Your task to perform on an android device: Open the Play Movies app and select the watchlist tab. Image 0: 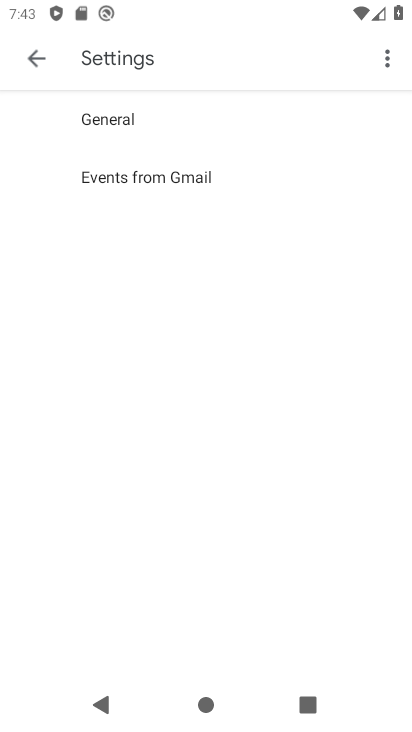
Step 0: press home button
Your task to perform on an android device: Open the Play Movies app and select the watchlist tab. Image 1: 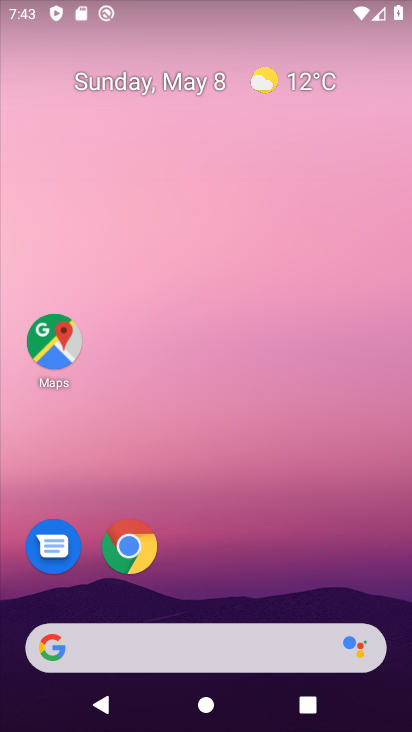
Step 1: click (314, 43)
Your task to perform on an android device: Open the Play Movies app and select the watchlist tab. Image 2: 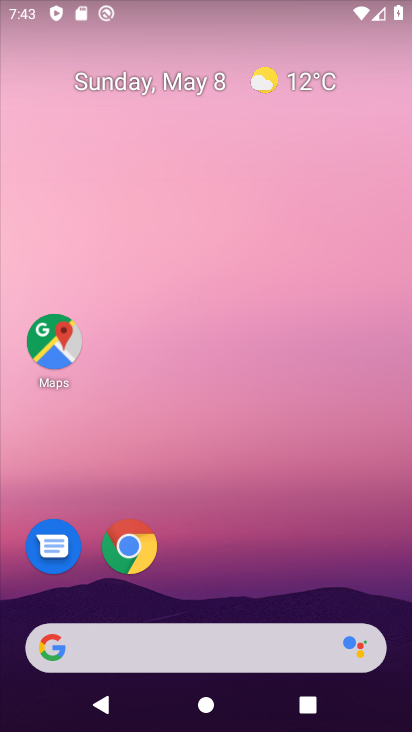
Step 2: click (316, 196)
Your task to perform on an android device: Open the Play Movies app and select the watchlist tab. Image 3: 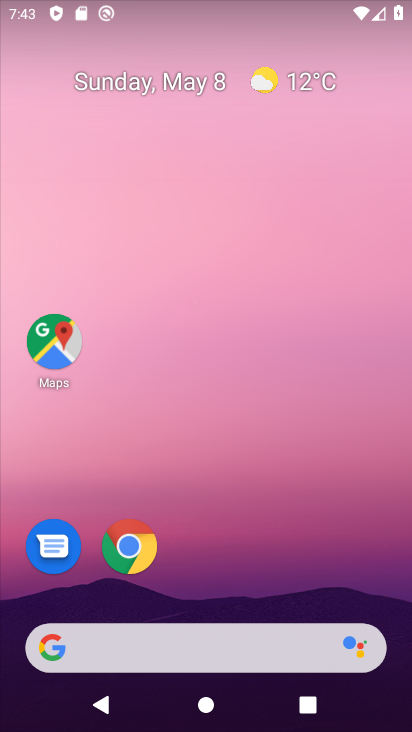
Step 3: drag from (397, 646) to (350, 37)
Your task to perform on an android device: Open the Play Movies app and select the watchlist tab. Image 4: 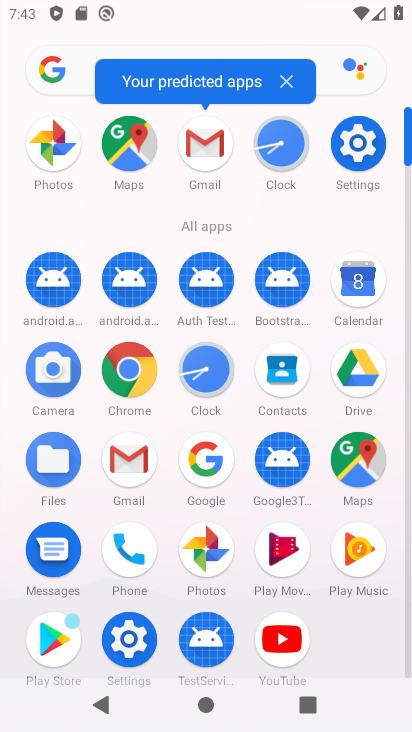
Step 4: click (276, 541)
Your task to perform on an android device: Open the Play Movies app and select the watchlist tab. Image 5: 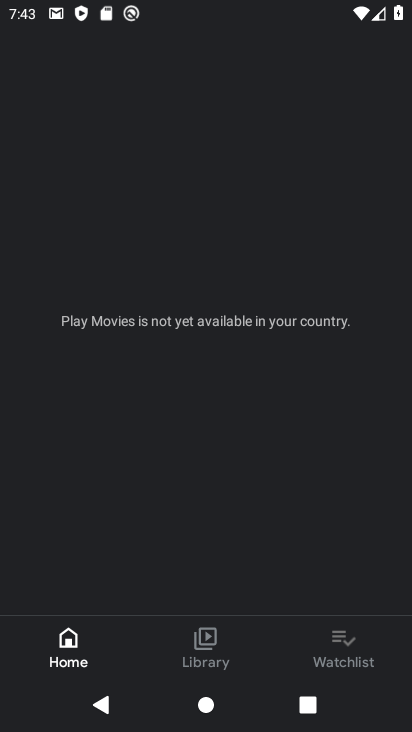
Step 5: click (340, 637)
Your task to perform on an android device: Open the Play Movies app and select the watchlist tab. Image 6: 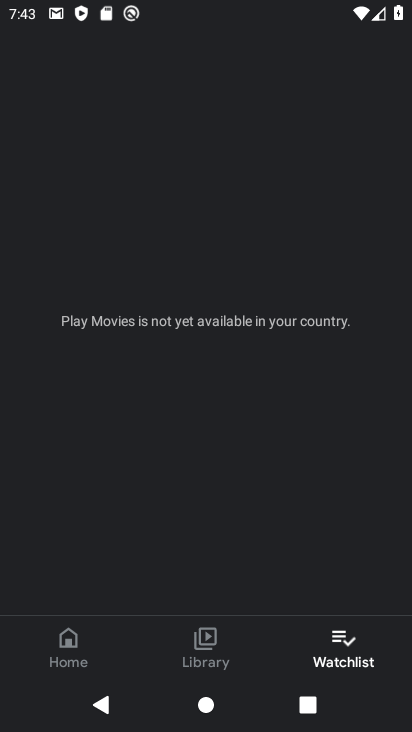
Step 6: task complete